Your task to perform on an android device: change the clock display to show seconds Image 0: 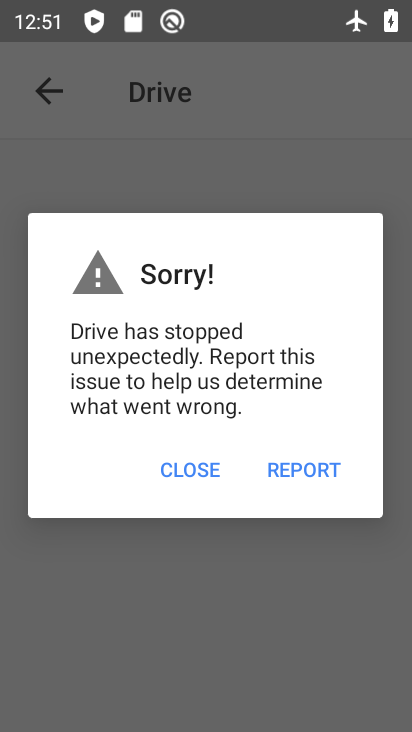
Step 0: press home button
Your task to perform on an android device: change the clock display to show seconds Image 1: 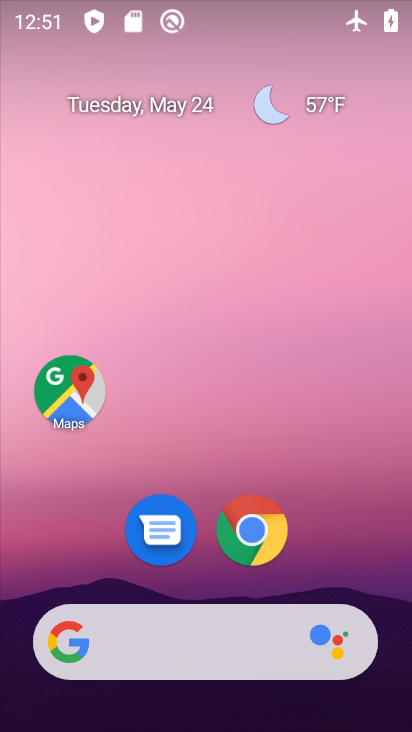
Step 1: drag from (191, 578) to (190, 3)
Your task to perform on an android device: change the clock display to show seconds Image 2: 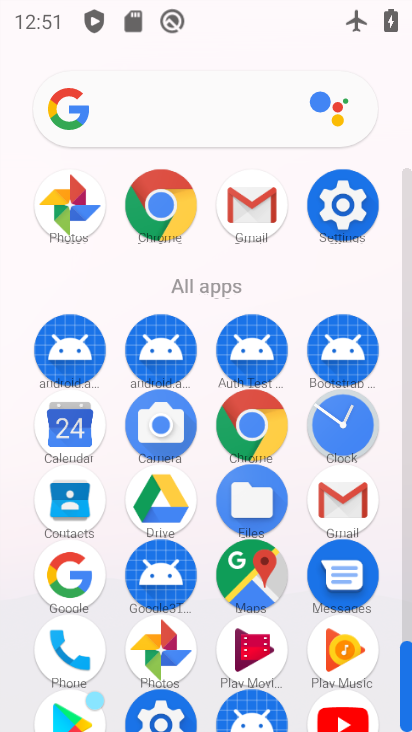
Step 2: click (331, 427)
Your task to perform on an android device: change the clock display to show seconds Image 3: 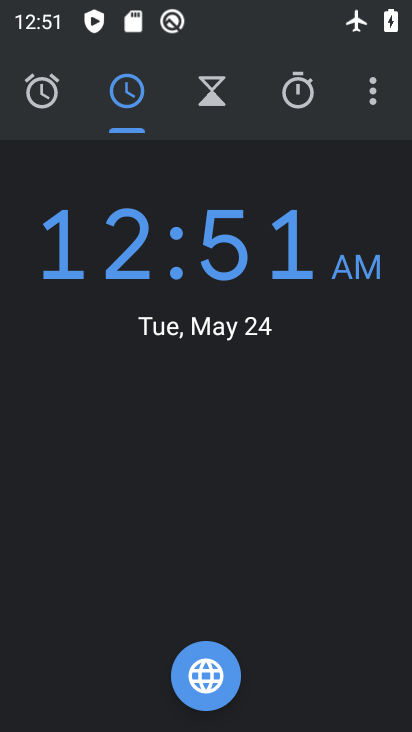
Step 3: click (366, 99)
Your task to perform on an android device: change the clock display to show seconds Image 4: 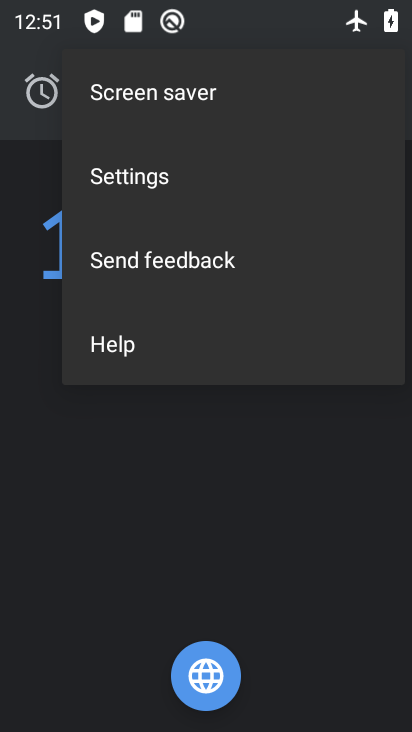
Step 4: click (172, 175)
Your task to perform on an android device: change the clock display to show seconds Image 5: 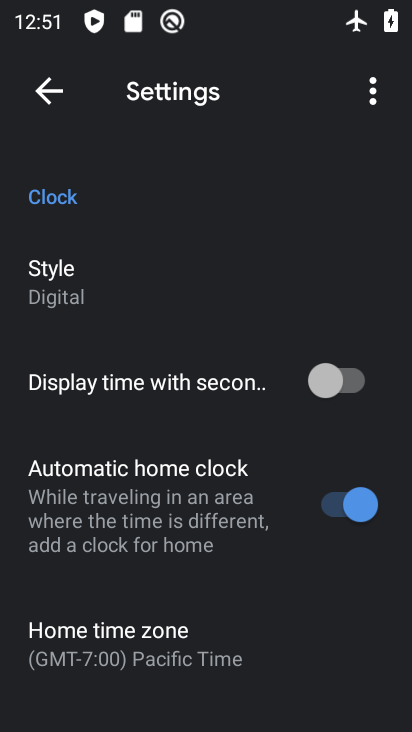
Step 5: click (357, 374)
Your task to perform on an android device: change the clock display to show seconds Image 6: 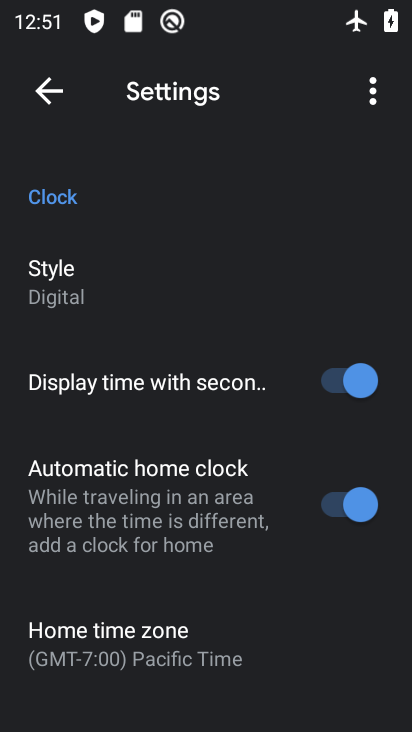
Step 6: task complete